Your task to perform on an android device: Open Android settings Image 0: 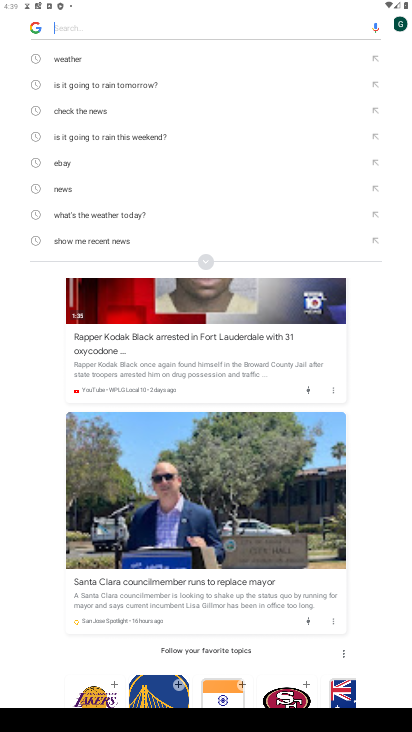
Step 0: press home button
Your task to perform on an android device: Open Android settings Image 1: 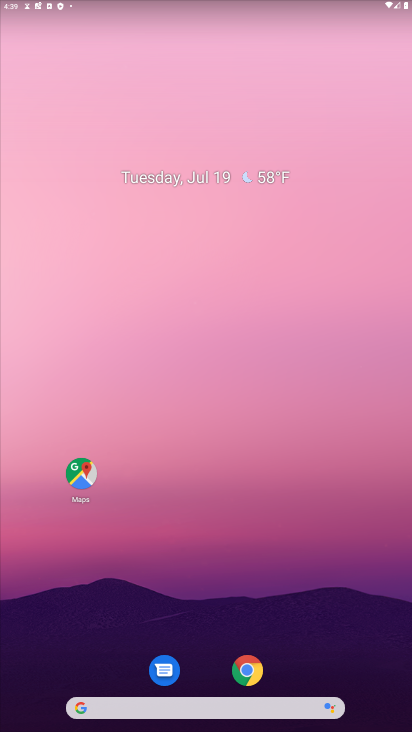
Step 1: drag from (268, 708) to (304, 0)
Your task to perform on an android device: Open Android settings Image 2: 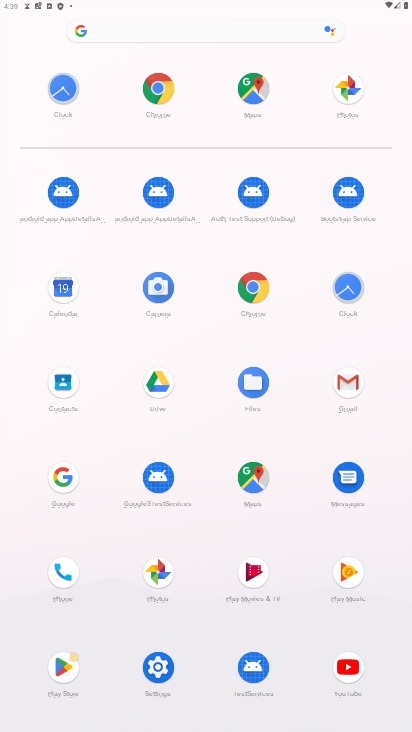
Step 2: click (161, 664)
Your task to perform on an android device: Open Android settings Image 3: 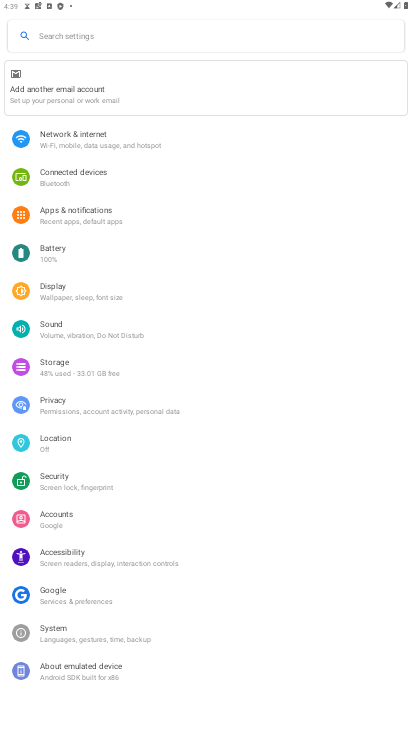
Step 3: drag from (56, 581) to (59, 451)
Your task to perform on an android device: Open Android settings Image 4: 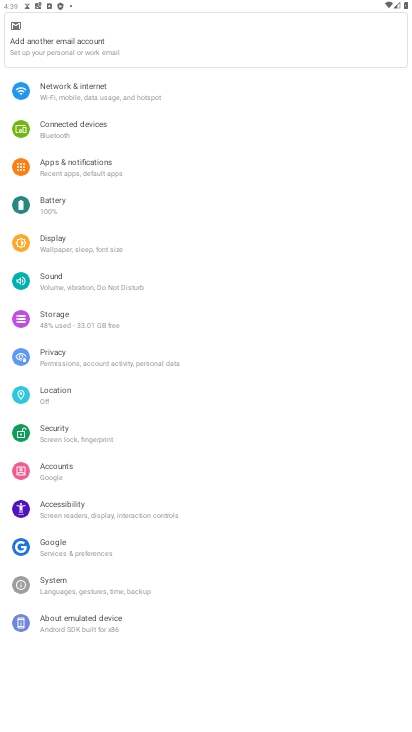
Step 4: click (83, 629)
Your task to perform on an android device: Open Android settings Image 5: 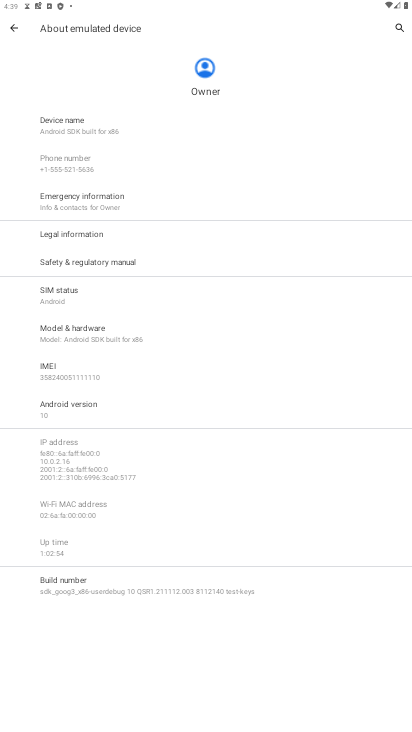
Step 5: click (93, 400)
Your task to perform on an android device: Open Android settings Image 6: 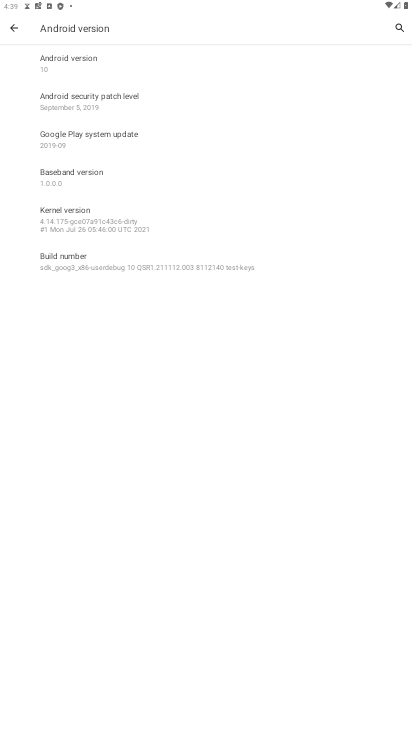
Step 6: task complete